Your task to perform on an android device: turn notification dots on Image 0: 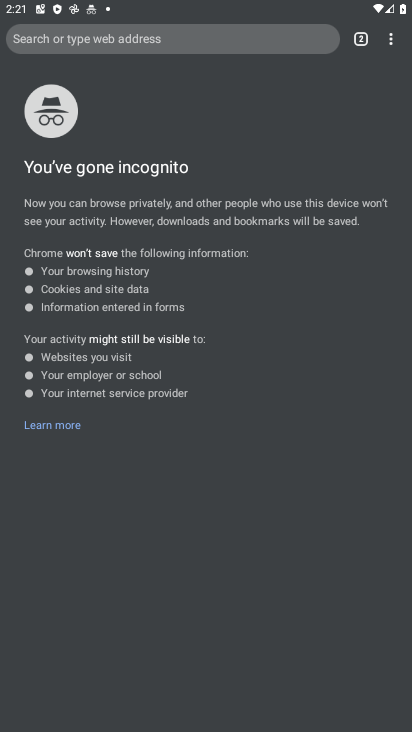
Step 0: task complete